Your task to perform on an android device: turn off data saver in the chrome app Image 0: 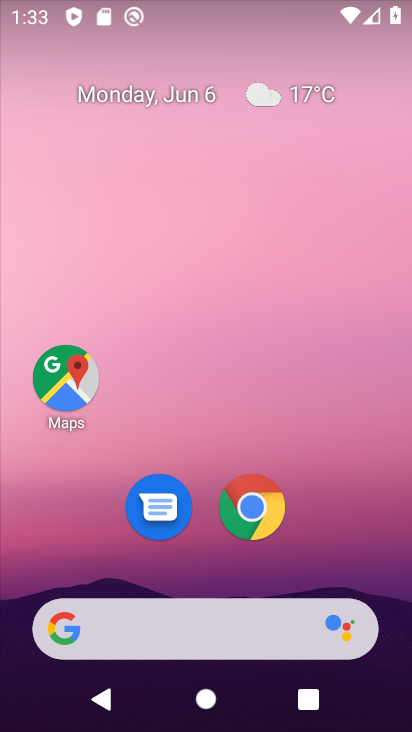
Step 0: click (254, 522)
Your task to perform on an android device: turn off data saver in the chrome app Image 1: 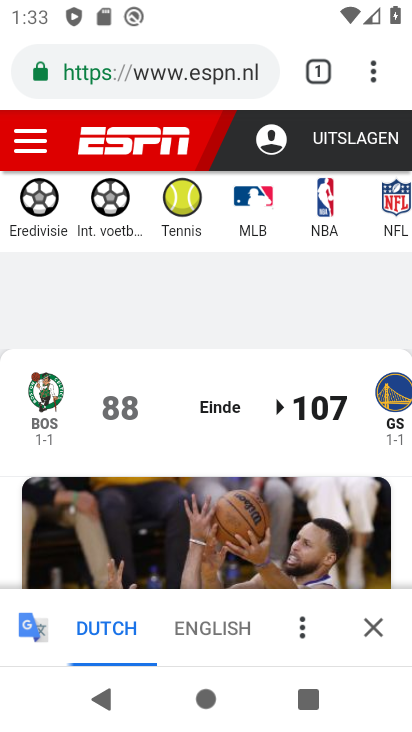
Step 1: click (381, 72)
Your task to perform on an android device: turn off data saver in the chrome app Image 2: 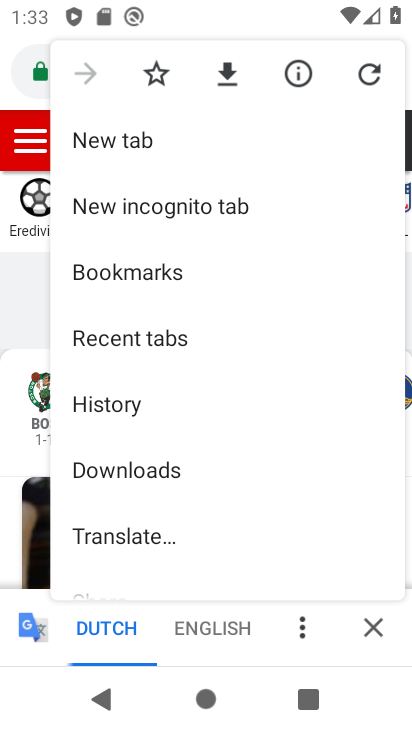
Step 2: drag from (238, 534) to (168, 117)
Your task to perform on an android device: turn off data saver in the chrome app Image 3: 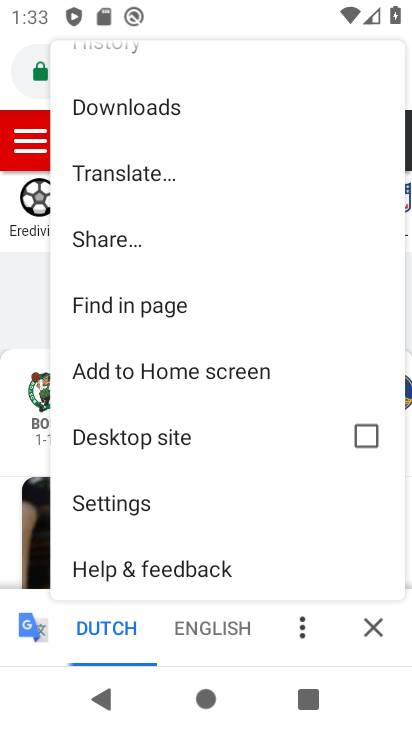
Step 3: drag from (218, 446) to (185, 189)
Your task to perform on an android device: turn off data saver in the chrome app Image 4: 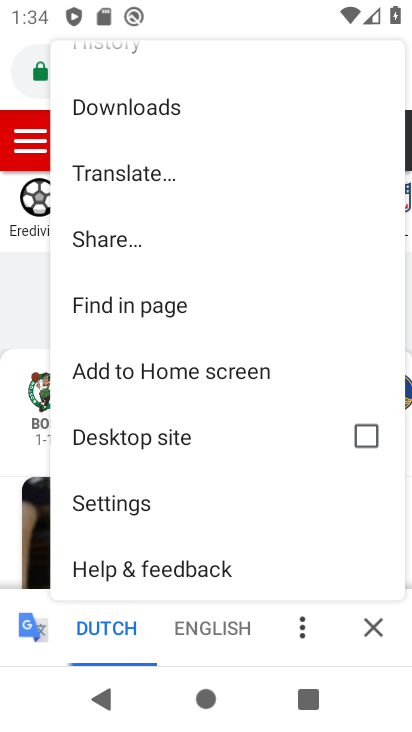
Step 4: click (183, 496)
Your task to perform on an android device: turn off data saver in the chrome app Image 5: 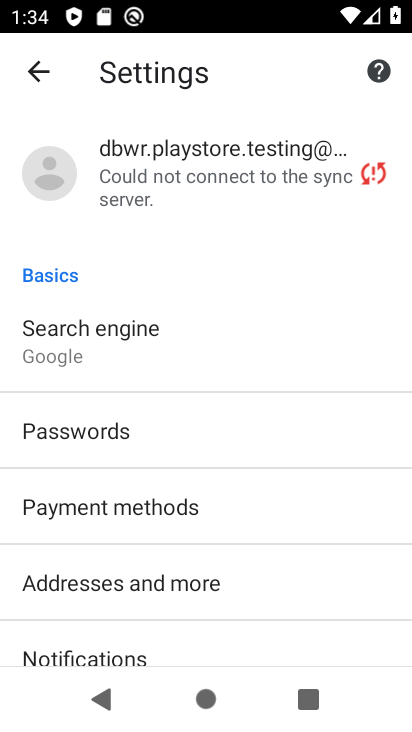
Step 5: drag from (199, 626) to (158, 114)
Your task to perform on an android device: turn off data saver in the chrome app Image 6: 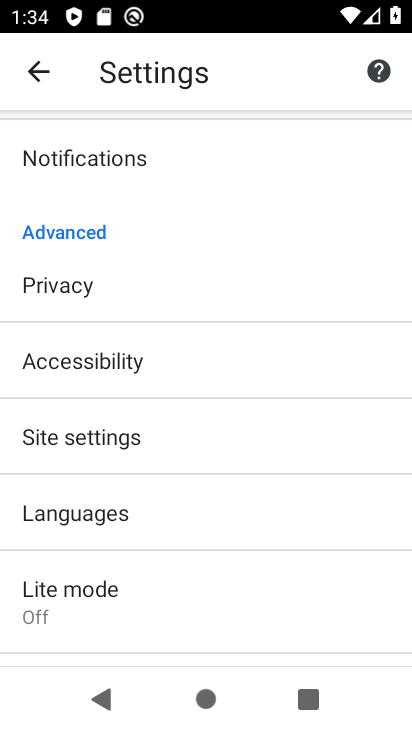
Step 6: click (166, 584)
Your task to perform on an android device: turn off data saver in the chrome app Image 7: 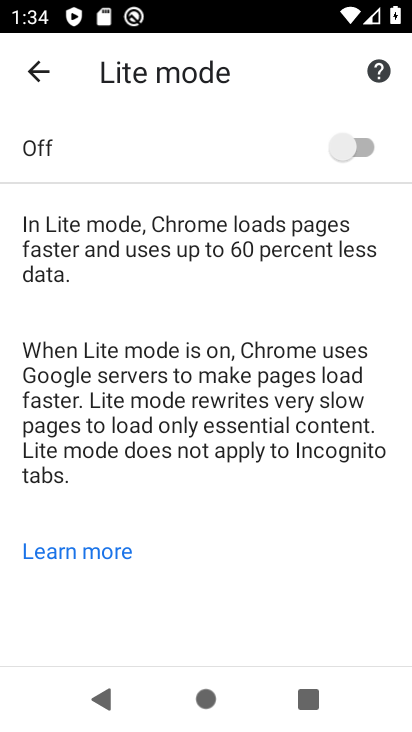
Step 7: task complete